Your task to perform on an android device: What's on my calendar today? Image 0: 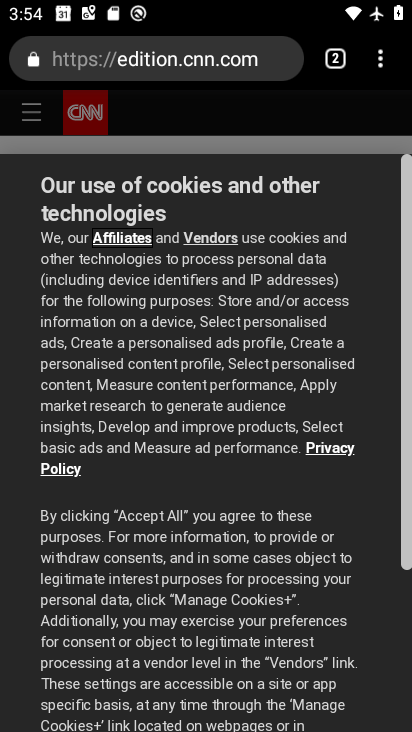
Step 0: press home button
Your task to perform on an android device: What's on my calendar today? Image 1: 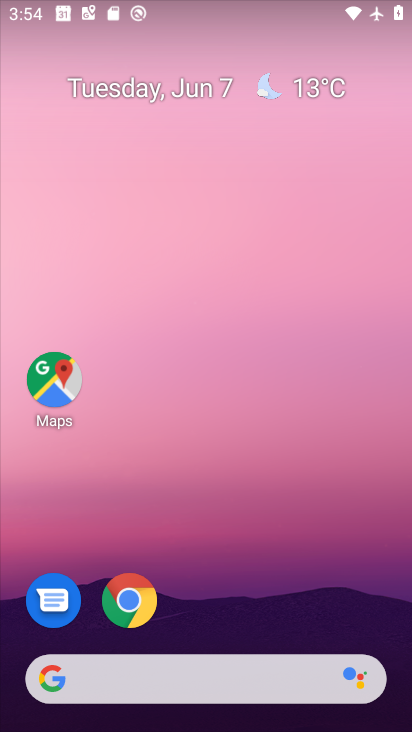
Step 1: drag from (329, 605) to (286, 119)
Your task to perform on an android device: What's on my calendar today? Image 2: 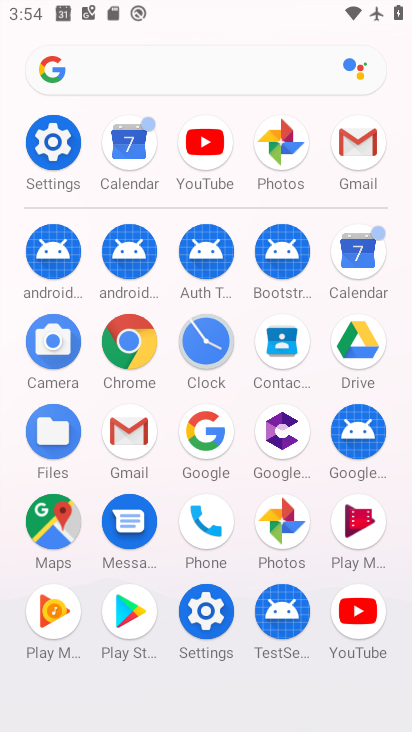
Step 2: click (358, 261)
Your task to perform on an android device: What's on my calendar today? Image 3: 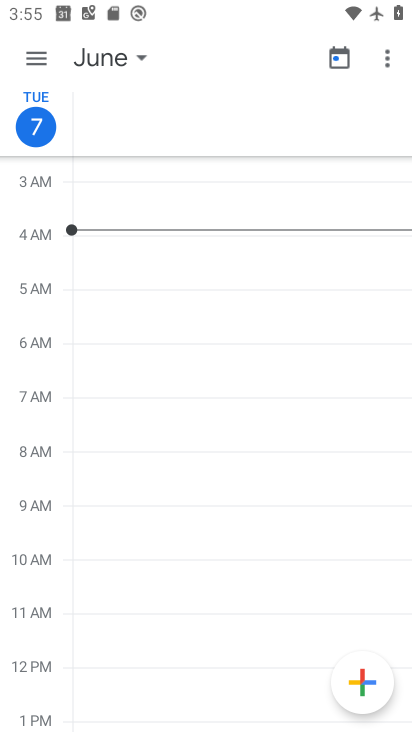
Step 3: task complete